Your task to perform on an android device: open device folders in google photos Image 0: 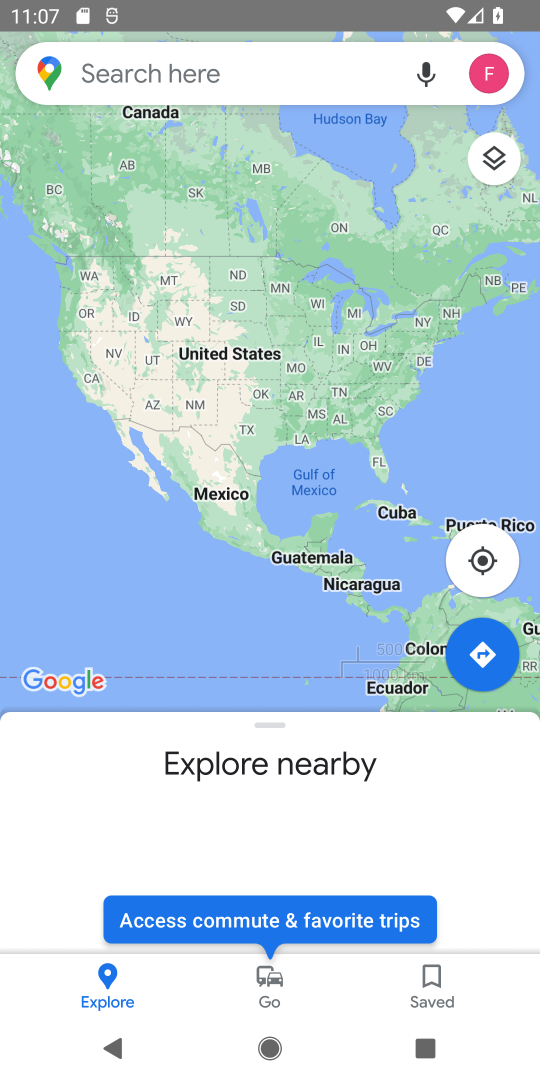
Step 0: press home button
Your task to perform on an android device: open device folders in google photos Image 1: 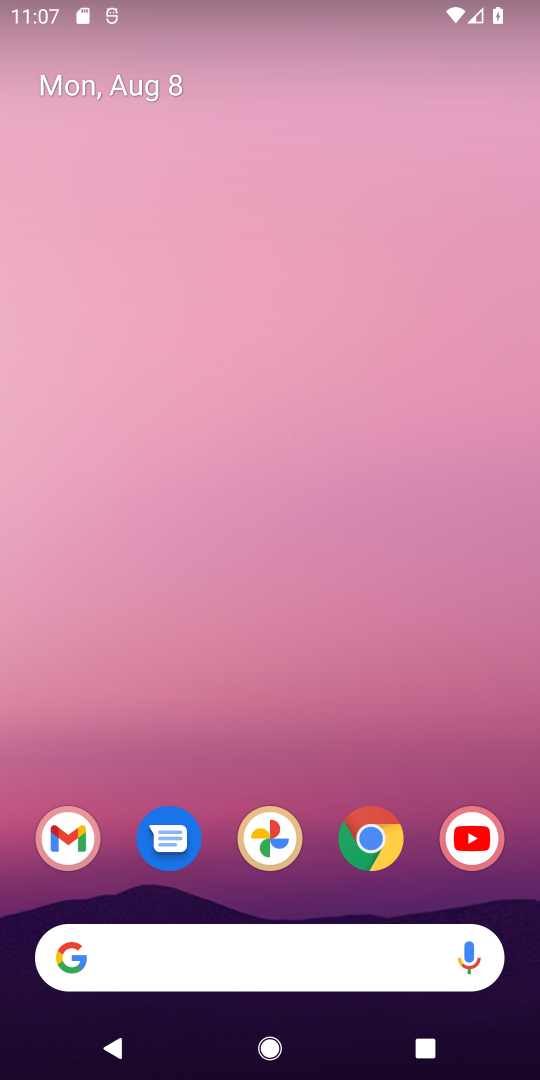
Step 1: click (278, 822)
Your task to perform on an android device: open device folders in google photos Image 2: 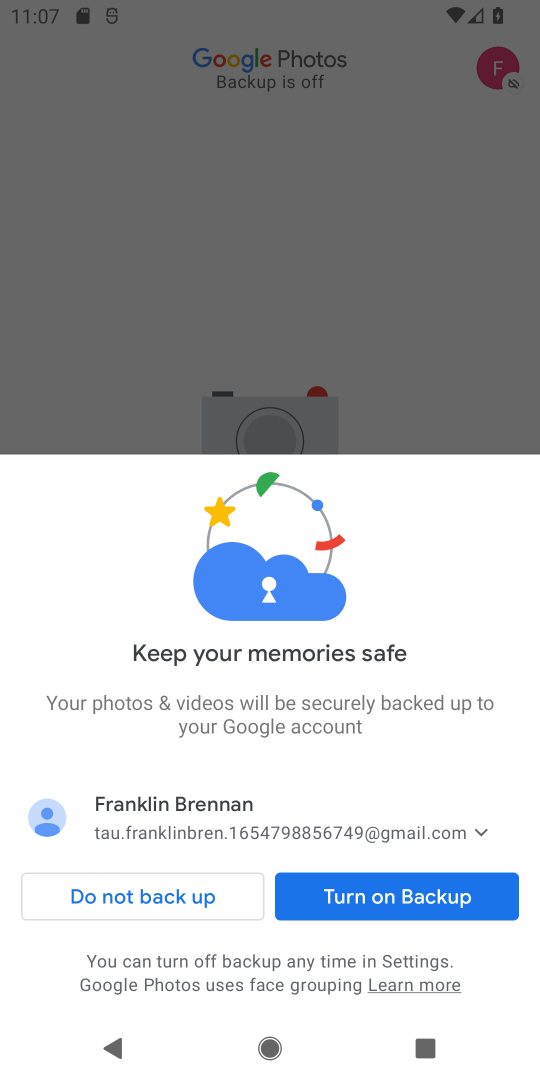
Step 2: click (401, 882)
Your task to perform on an android device: open device folders in google photos Image 3: 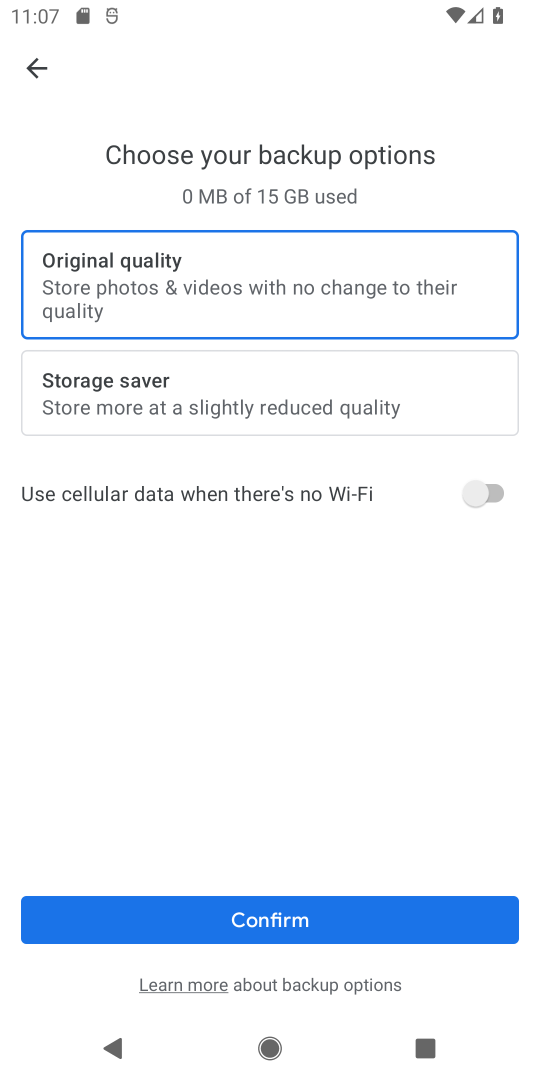
Step 3: click (412, 911)
Your task to perform on an android device: open device folders in google photos Image 4: 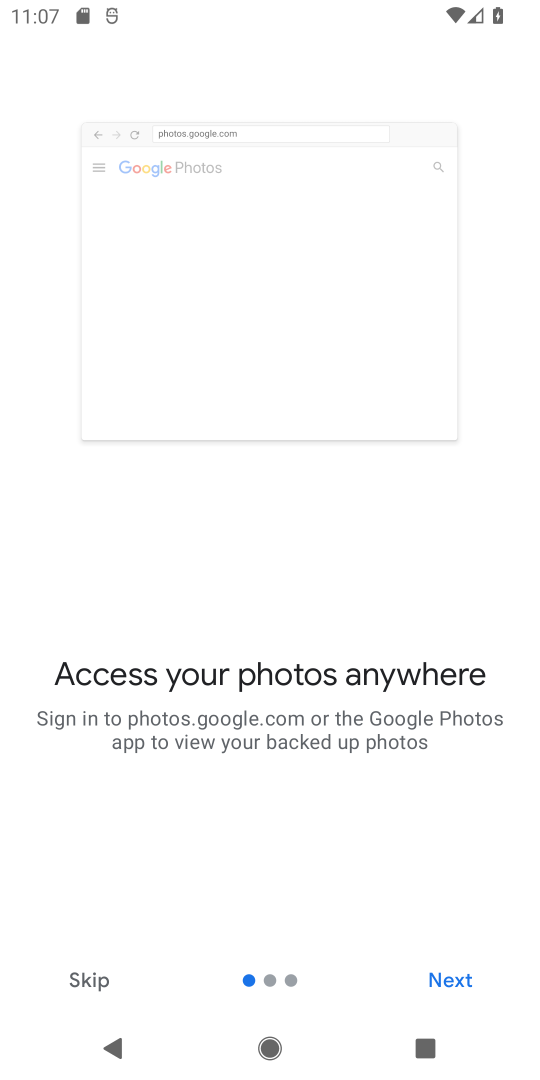
Step 4: click (86, 973)
Your task to perform on an android device: open device folders in google photos Image 5: 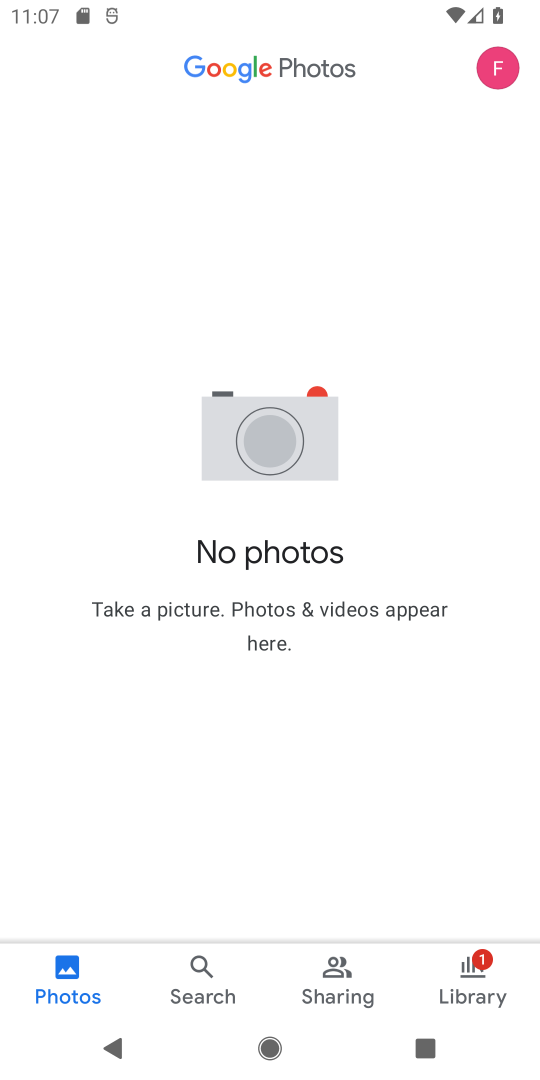
Step 5: task complete